Your task to perform on an android device: open wifi settings Image 0: 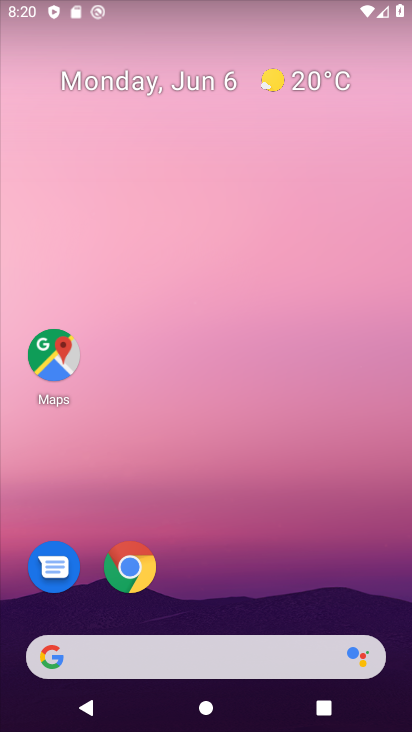
Step 0: drag from (185, 9) to (147, 649)
Your task to perform on an android device: open wifi settings Image 1: 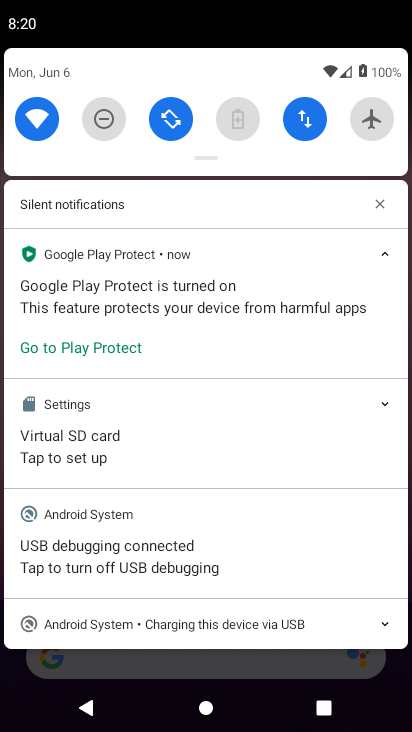
Step 1: click (45, 116)
Your task to perform on an android device: open wifi settings Image 2: 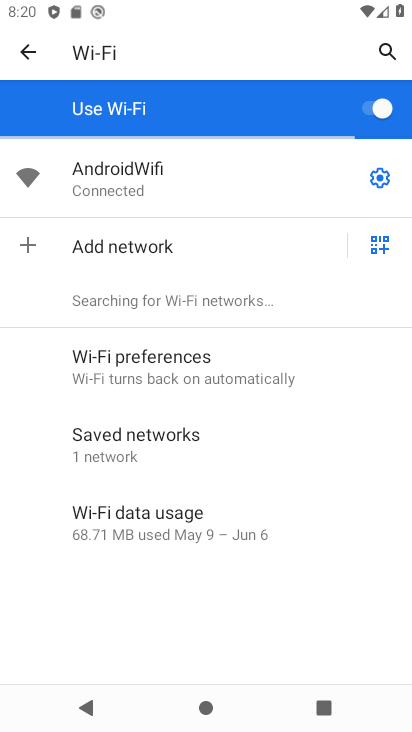
Step 2: task complete